Your task to perform on an android device: Search for the best gaming monitor on Best Buy Image 0: 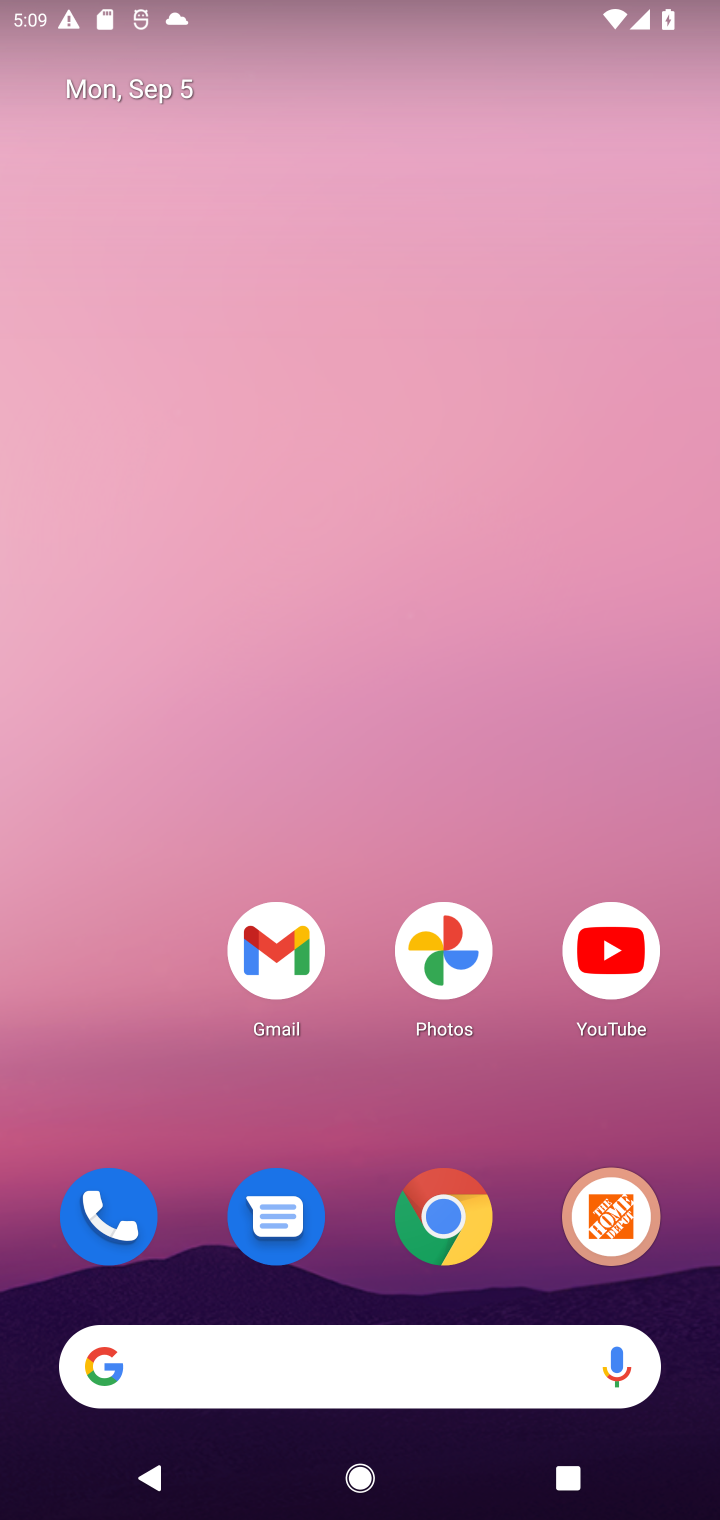
Step 0: press home button
Your task to perform on an android device: Search for the best gaming monitor on Best Buy Image 1: 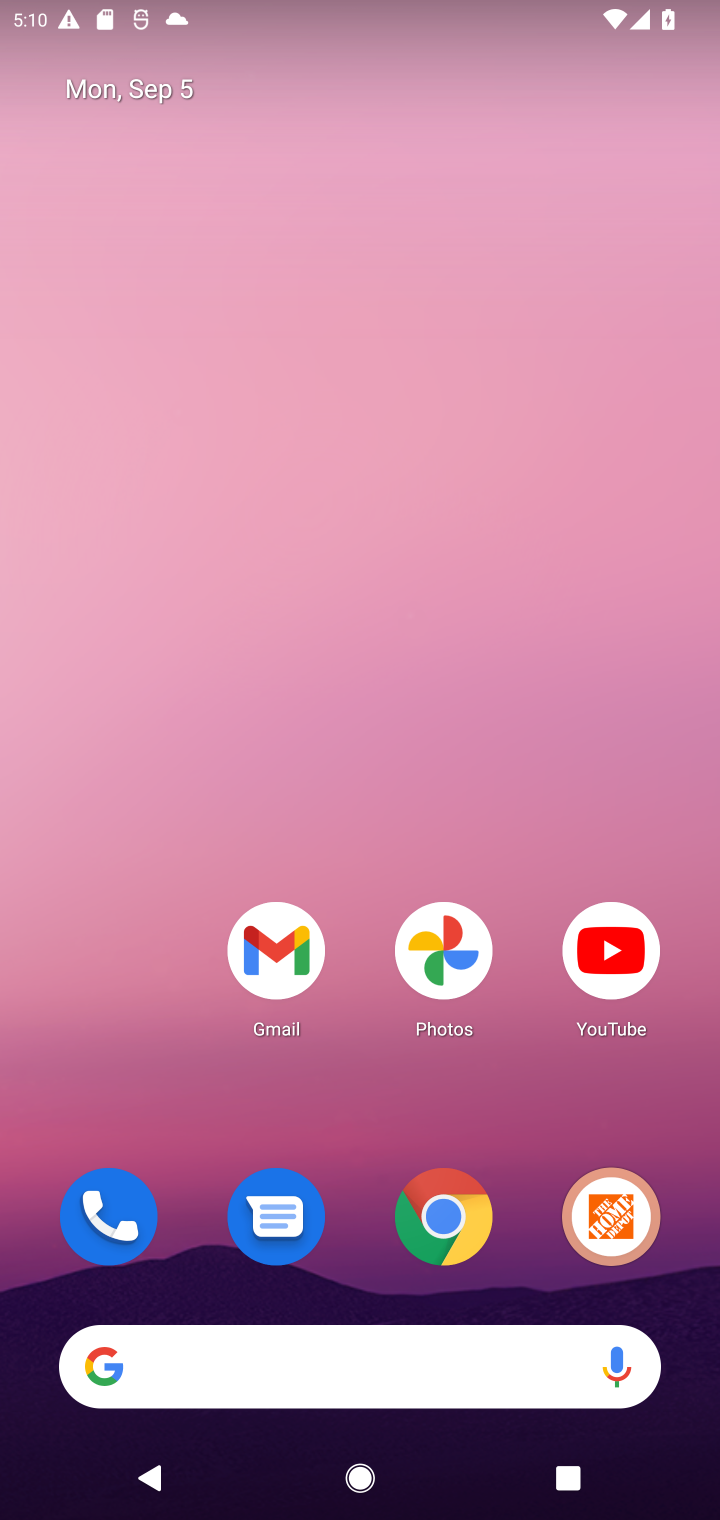
Step 1: click (100, 1368)
Your task to perform on an android device: Search for the best gaming monitor on Best Buy Image 2: 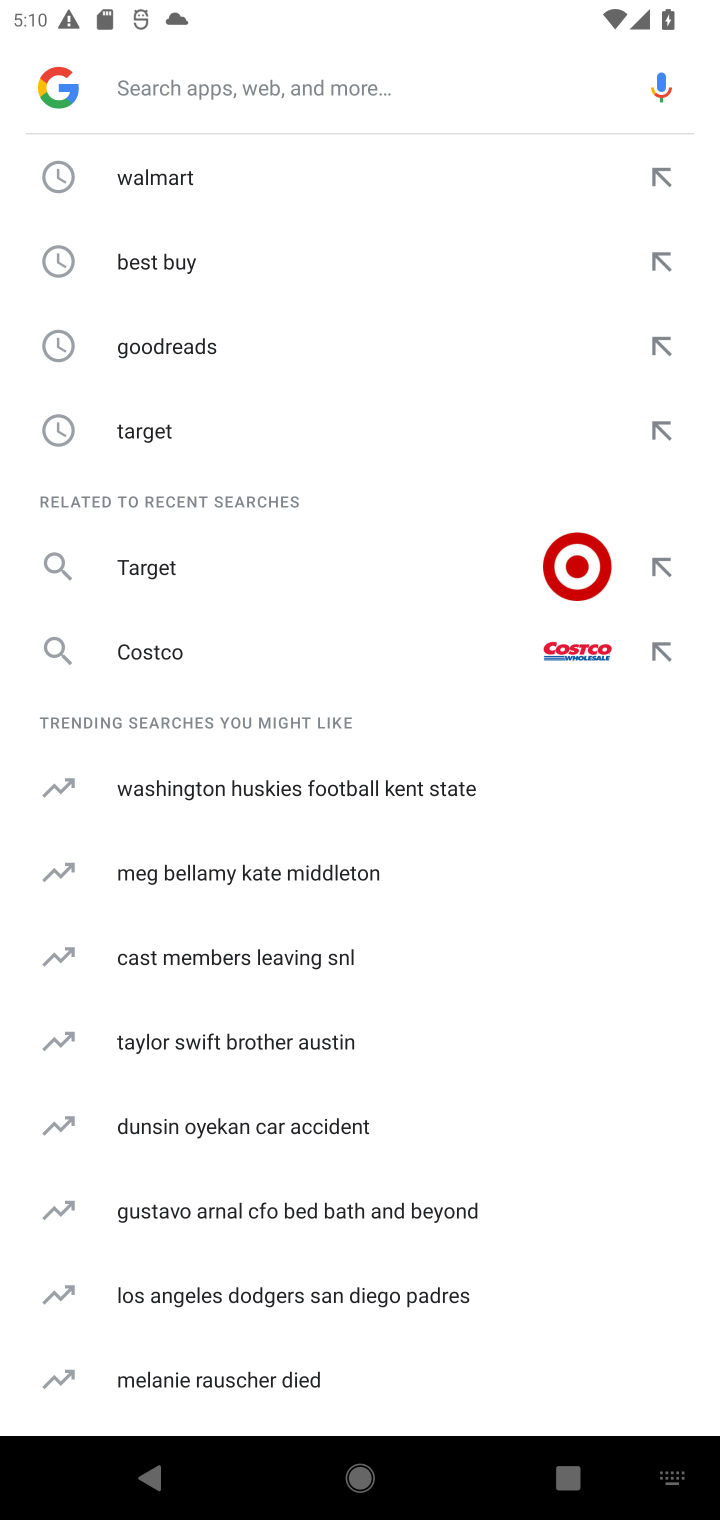
Step 2: type "Best Buy"
Your task to perform on an android device: Search for the best gaming monitor on Best Buy Image 3: 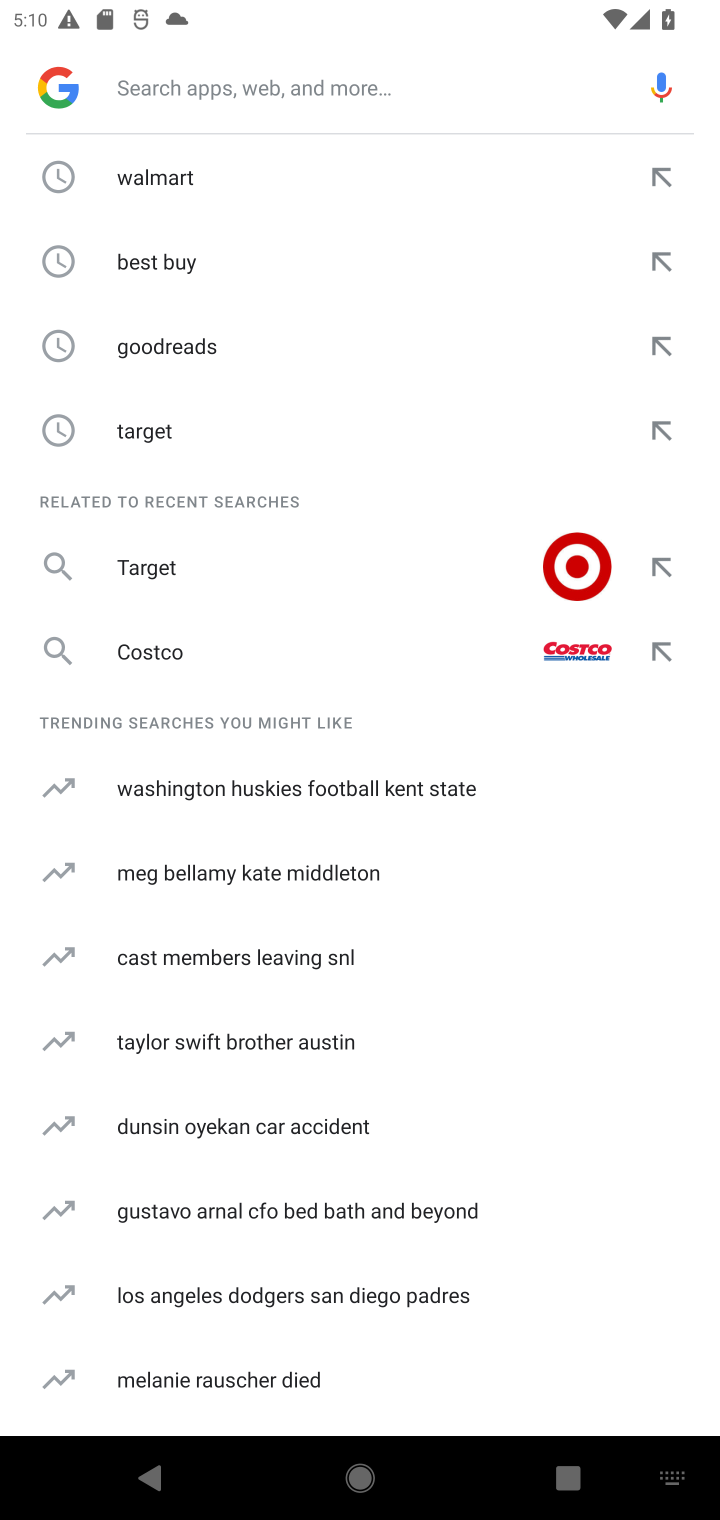
Step 3: click (170, 78)
Your task to perform on an android device: Search for the best gaming monitor on Best Buy Image 4: 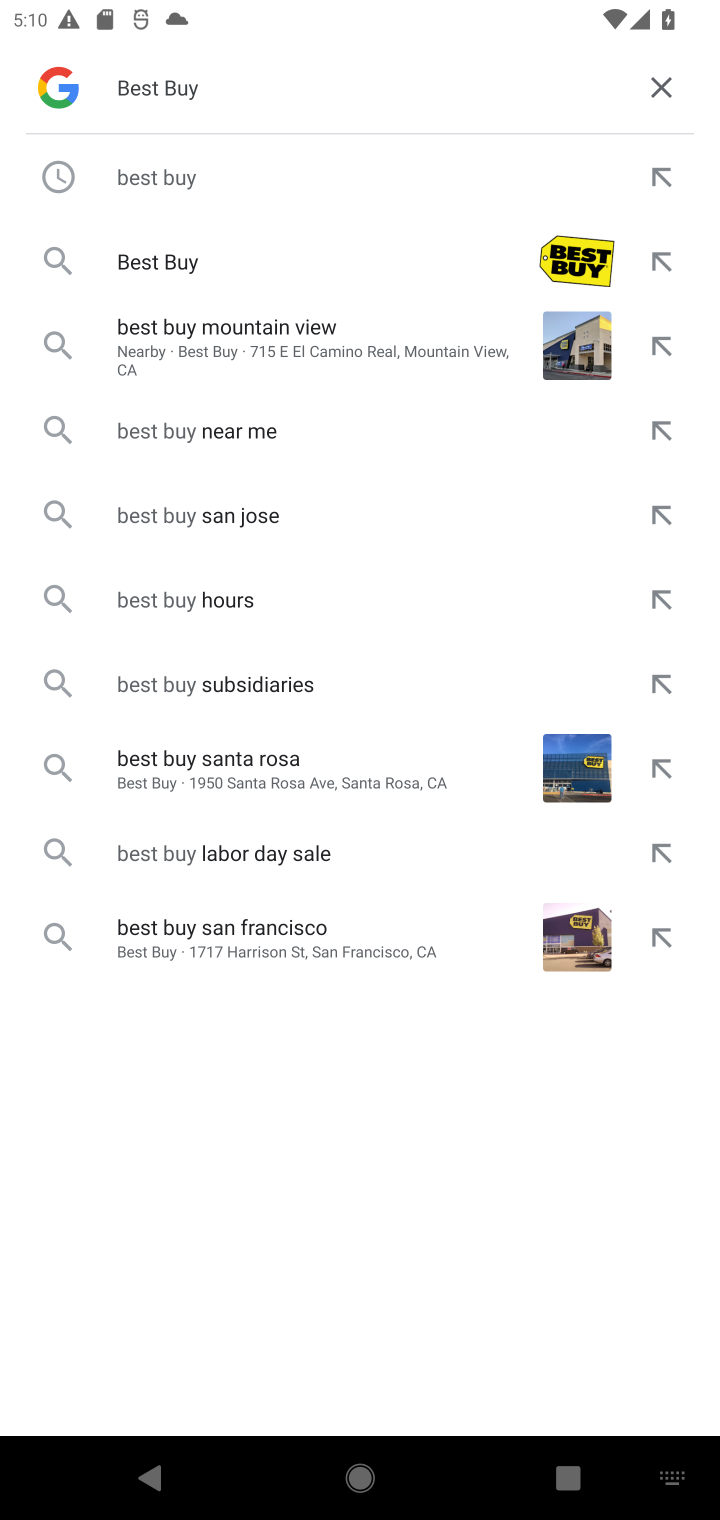
Step 4: press enter
Your task to perform on an android device: Search for the best gaming monitor on Best Buy Image 5: 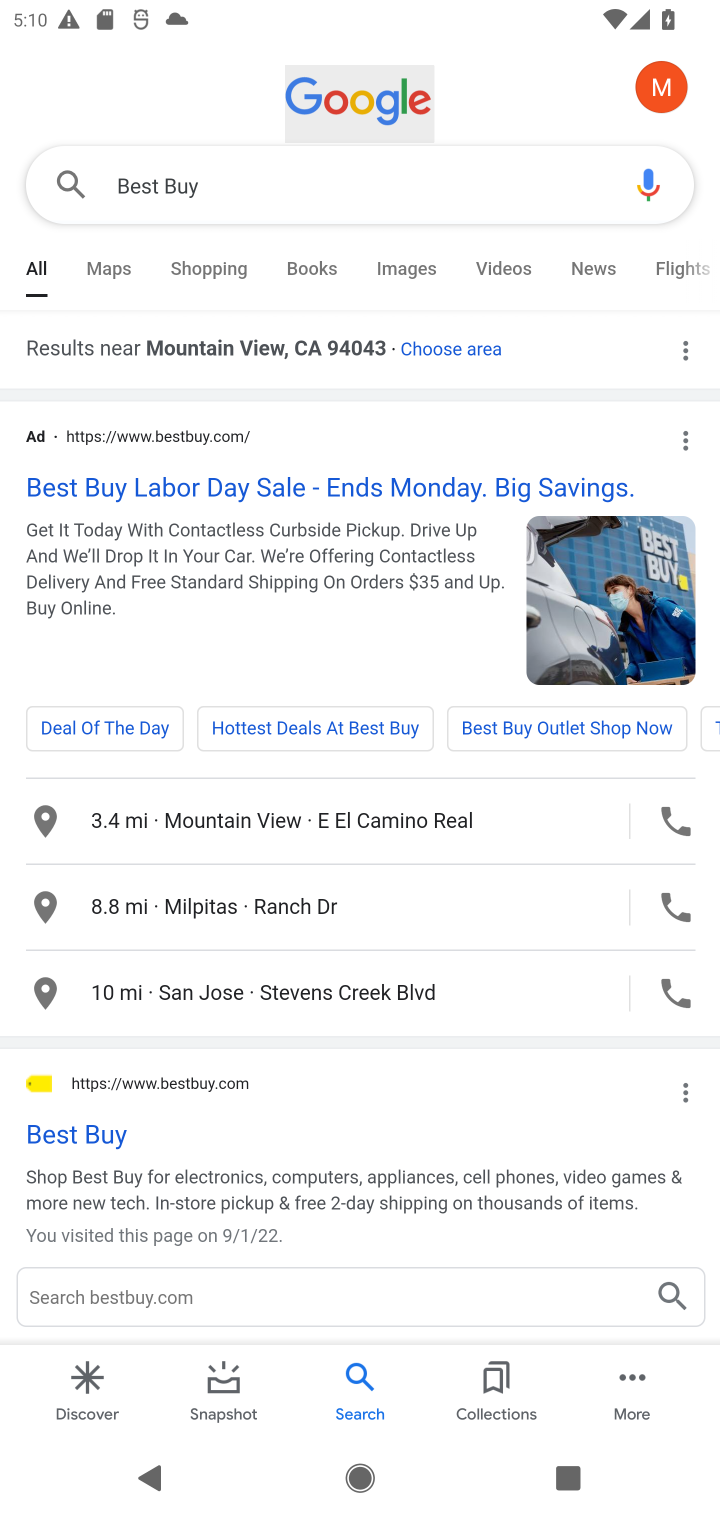
Step 5: click (77, 1131)
Your task to perform on an android device: Search for the best gaming monitor on Best Buy Image 6: 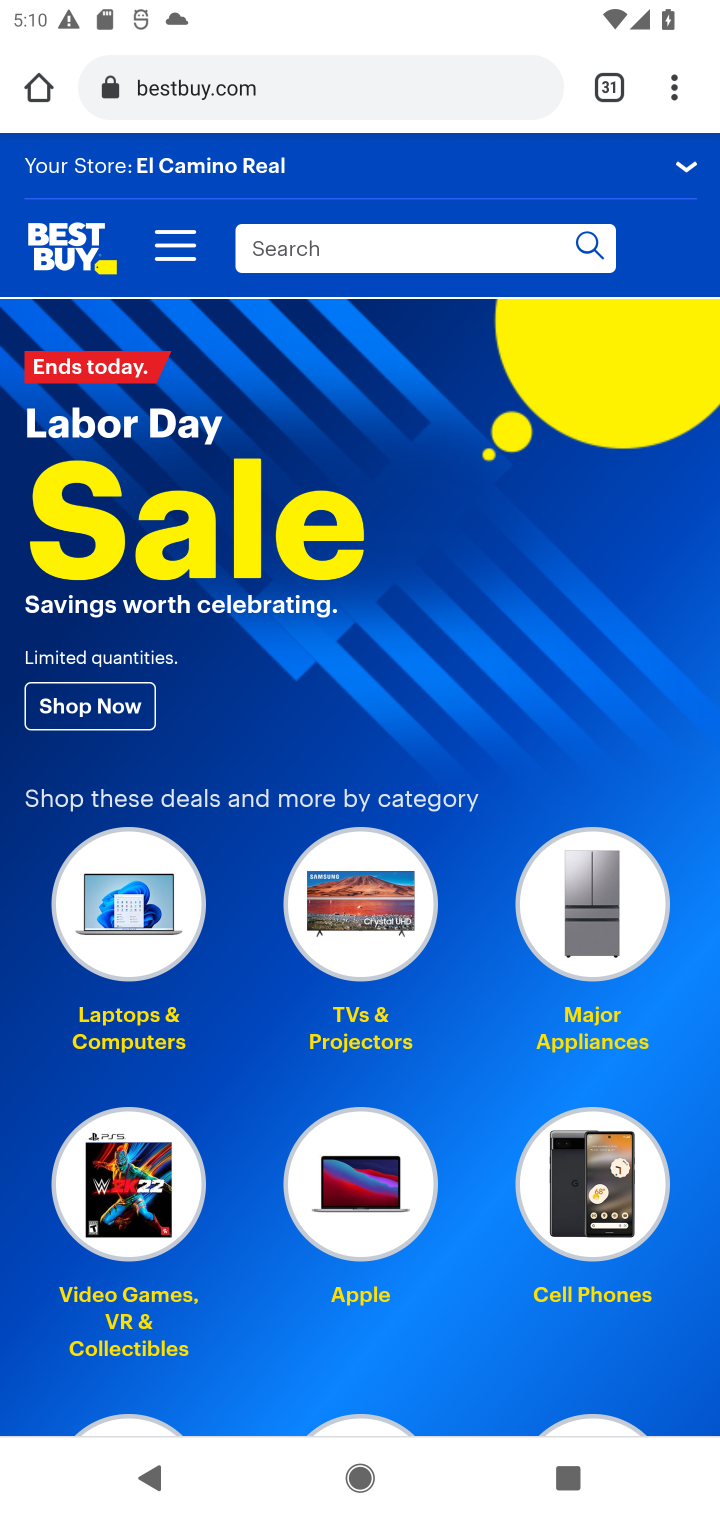
Step 6: click (355, 244)
Your task to perform on an android device: Search for the best gaming monitor on Best Buy Image 7: 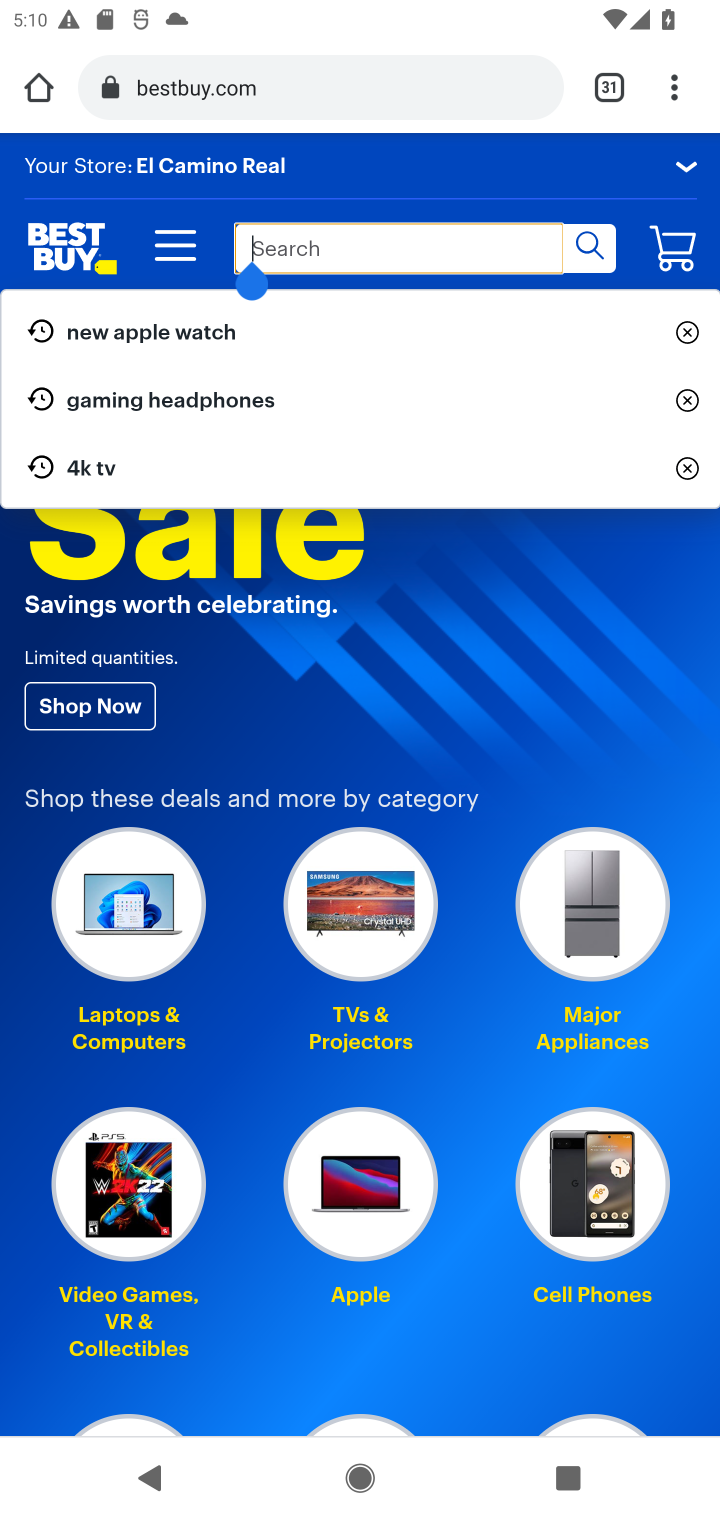
Step 7: type "best gaming monitor"
Your task to perform on an android device: Search for the best gaming monitor on Best Buy Image 8: 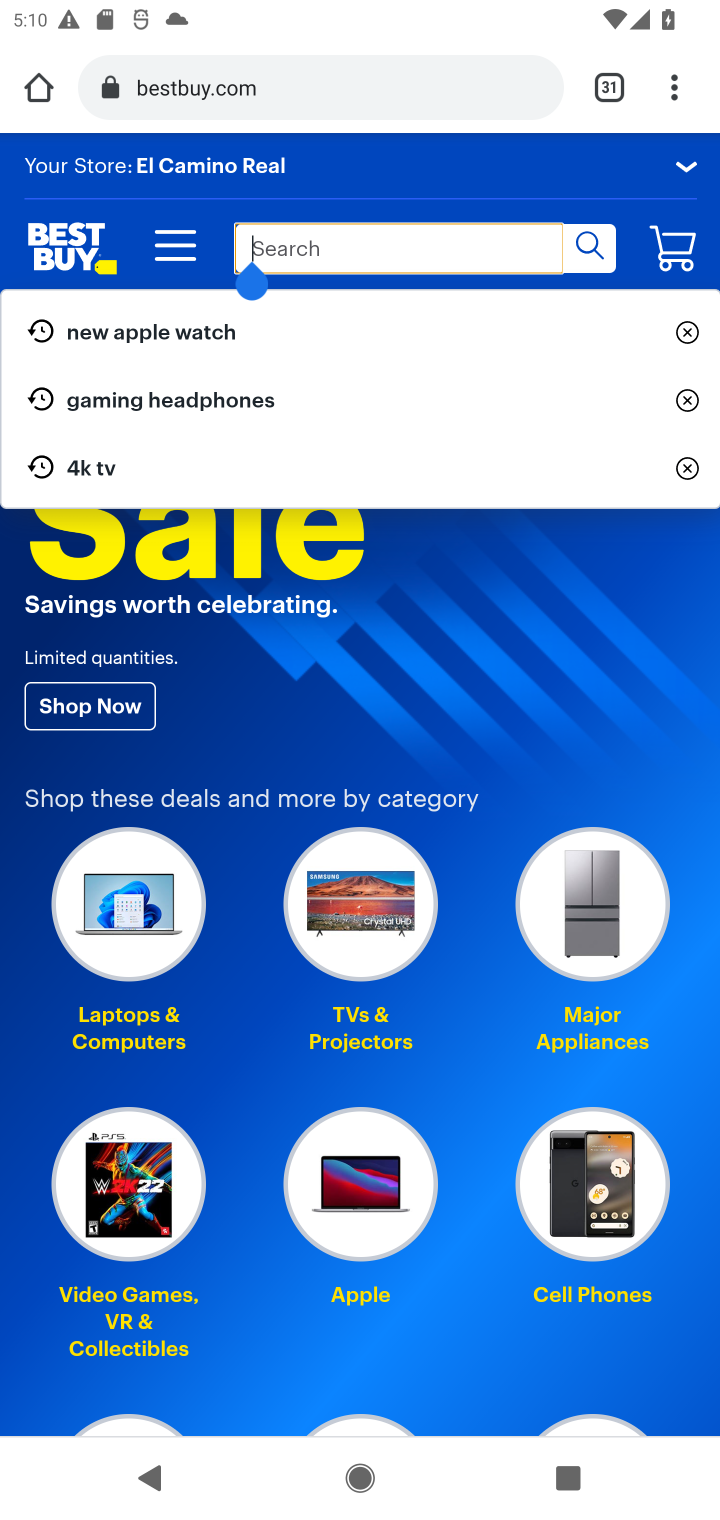
Step 8: click (371, 252)
Your task to perform on an android device: Search for the best gaming monitor on Best Buy Image 9: 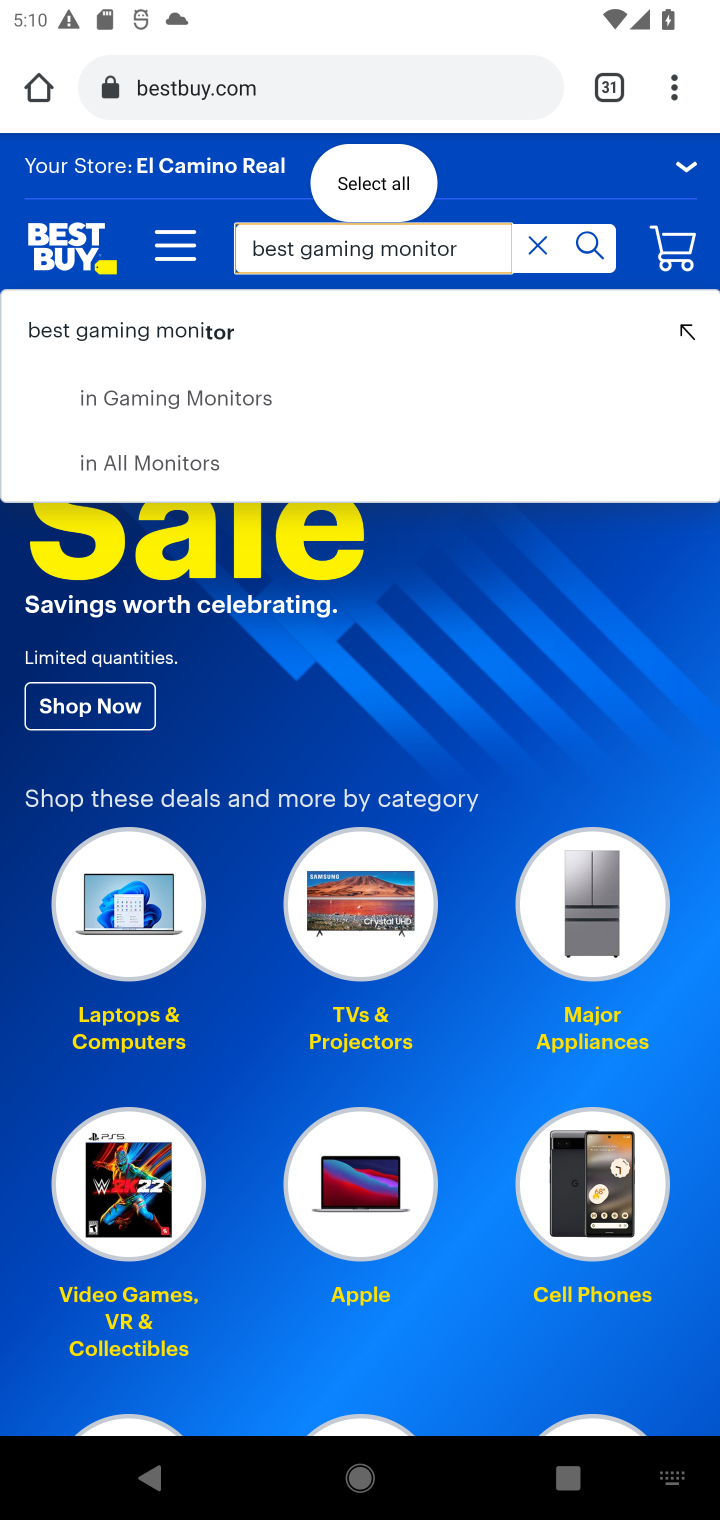
Step 9: press enter
Your task to perform on an android device: Search for the best gaming monitor on Best Buy Image 10: 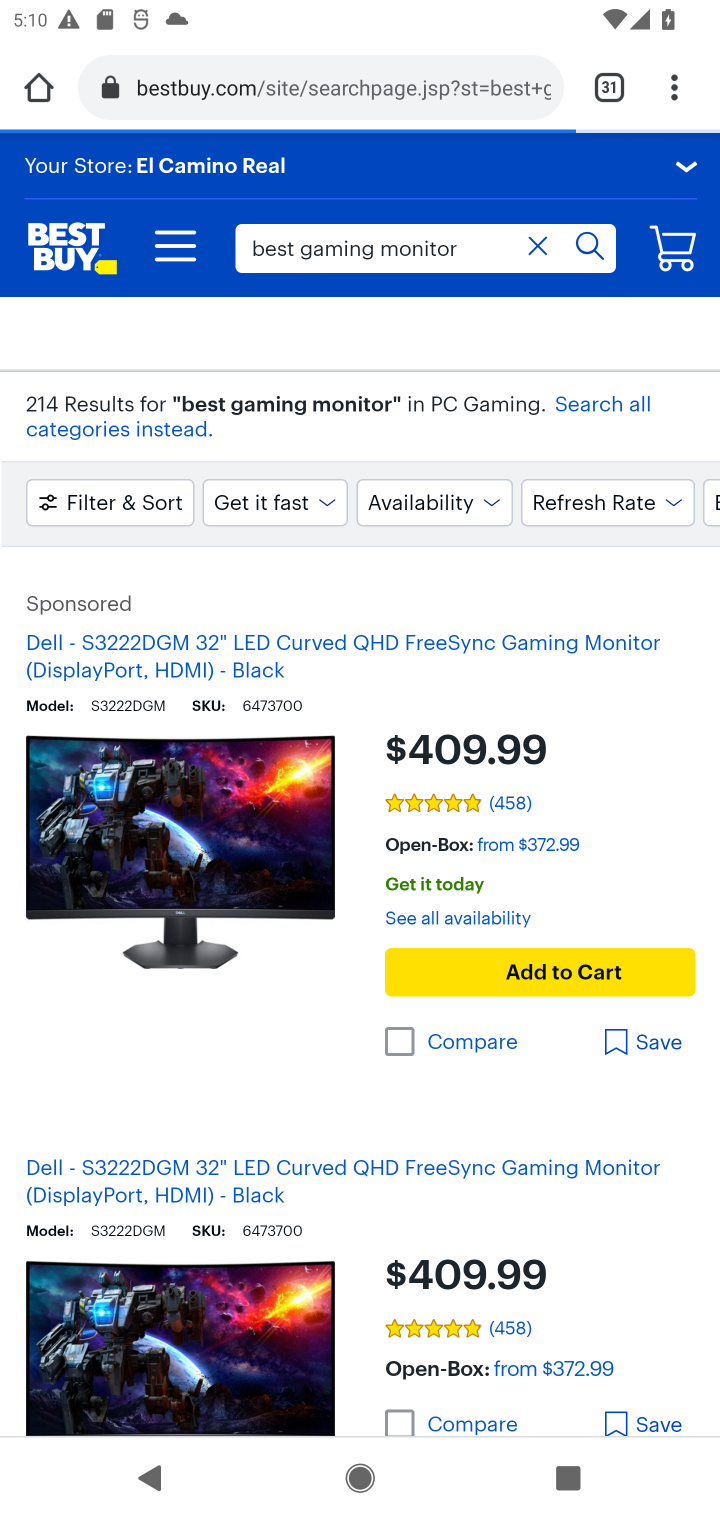
Step 10: task complete